Your task to perform on an android device: turn off translation in the chrome app Image 0: 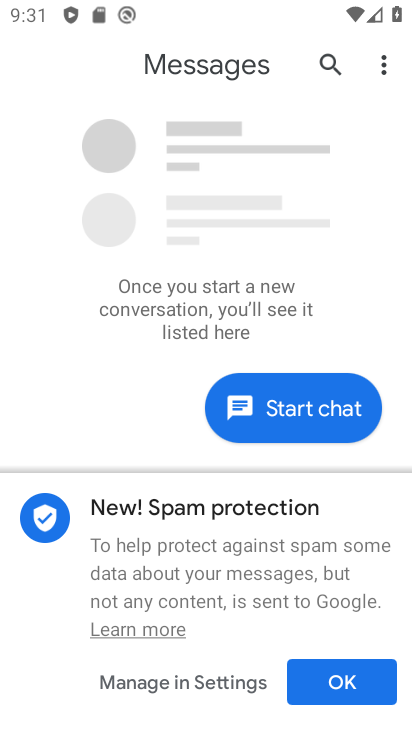
Step 0: press home button
Your task to perform on an android device: turn off translation in the chrome app Image 1: 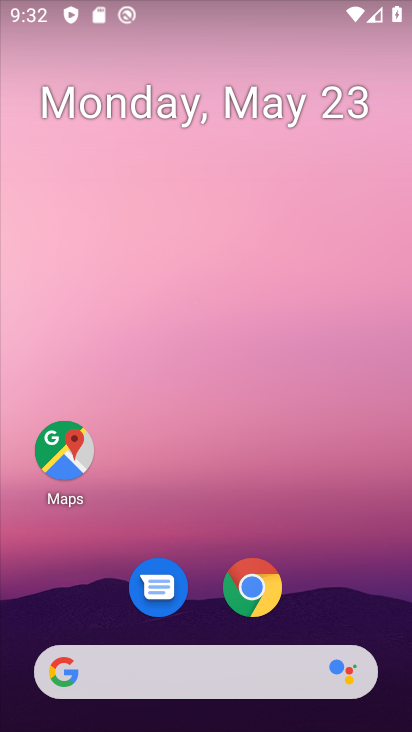
Step 1: drag from (358, 554) to (137, 0)
Your task to perform on an android device: turn off translation in the chrome app Image 2: 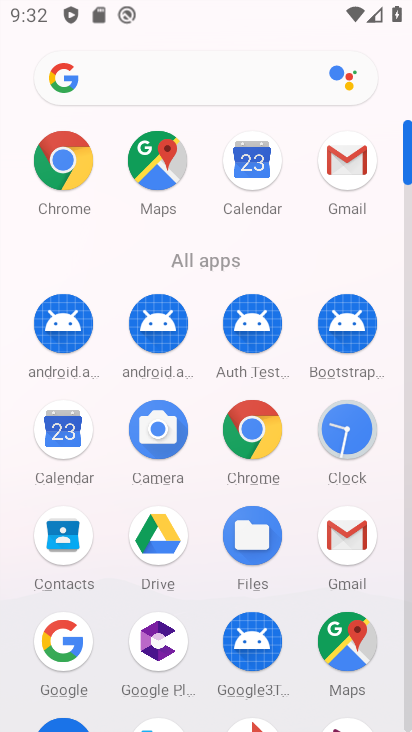
Step 2: click (77, 165)
Your task to perform on an android device: turn off translation in the chrome app Image 3: 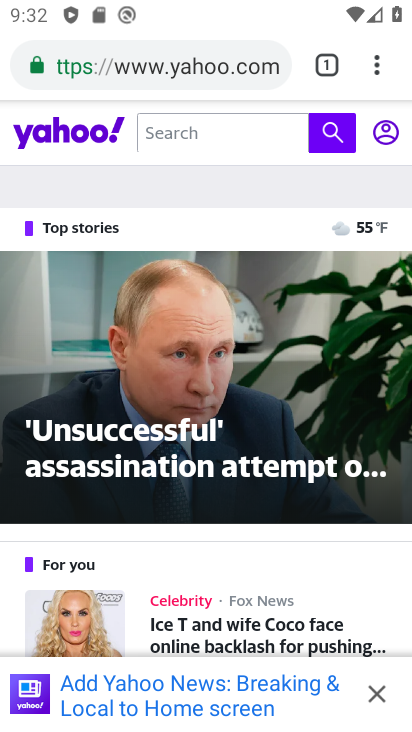
Step 3: drag from (387, 75) to (174, 610)
Your task to perform on an android device: turn off translation in the chrome app Image 4: 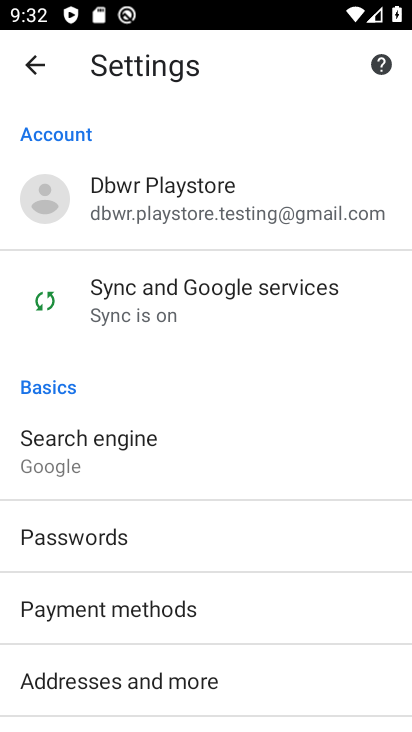
Step 4: drag from (175, 648) to (120, 225)
Your task to perform on an android device: turn off translation in the chrome app Image 5: 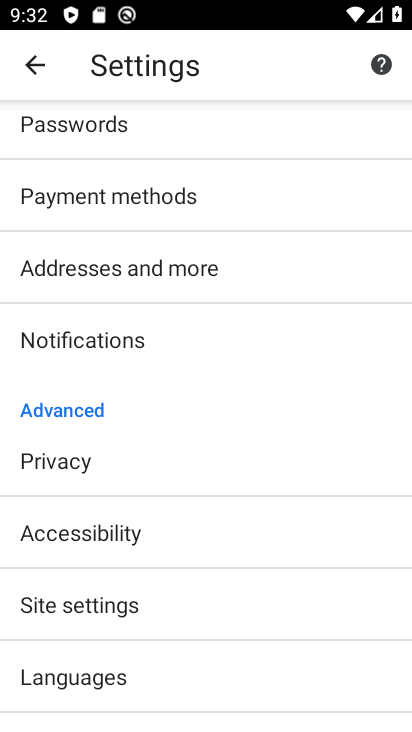
Step 5: drag from (100, 666) to (119, 425)
Your task to perform on an android device: turn off translation in the chrome app Image 6: 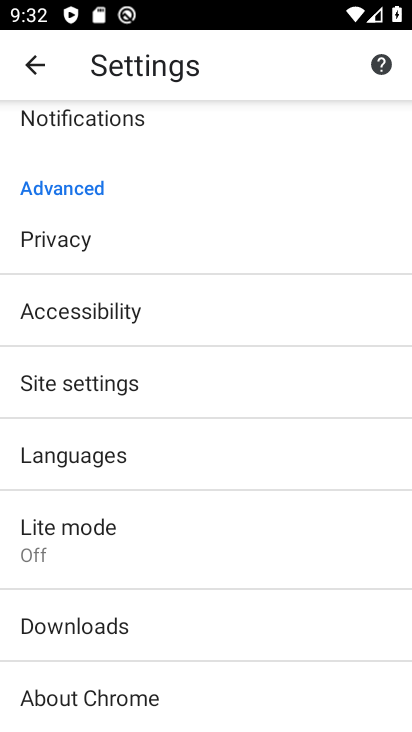
Step 6: click (95, 455)
Your task to perform on an android device: turn off translation in the chrome app Image 7: 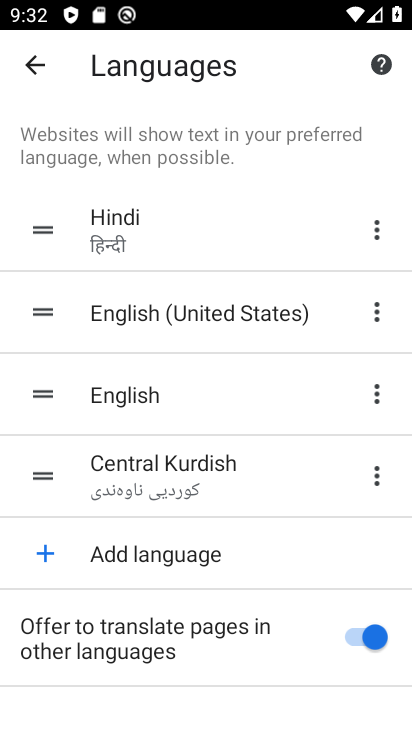
Step 7: click (381, 617)
Your task to perform on an android device: turn off translation in the chrome app Image 8: 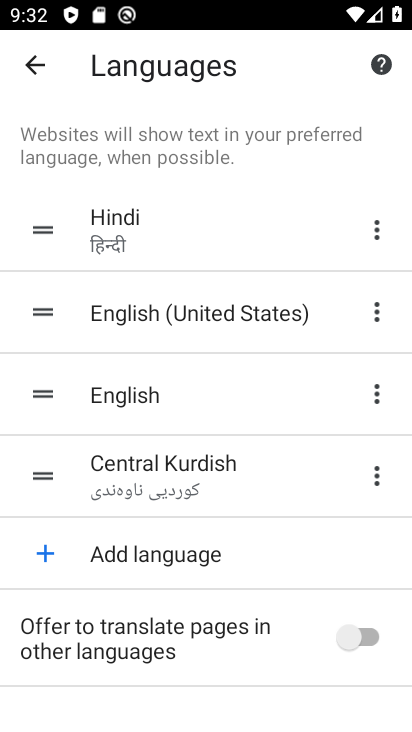
Step 8: task complete